Your task to perform on an android device: Go to calendar. Show me events next week Image 0: 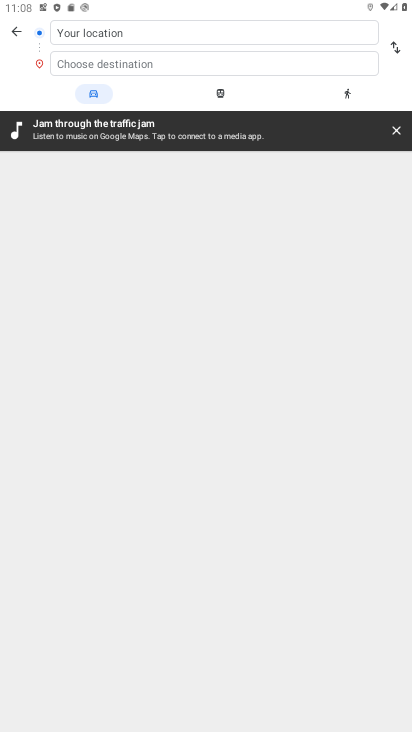
Step 0: press home button
Your task to perform on an android device: Go to calendar. Show me events next week Image 1: 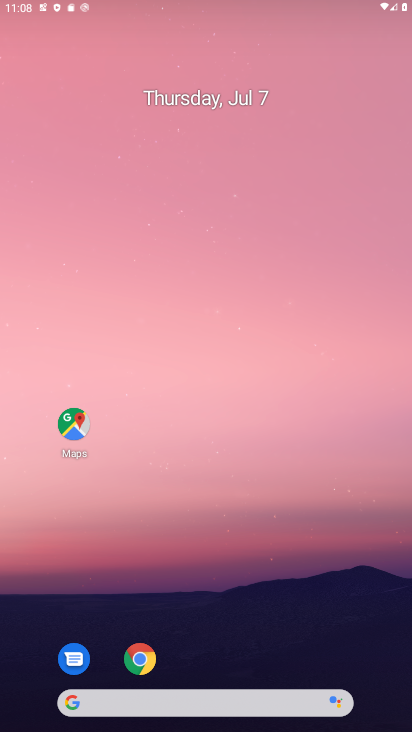
Step 1: drag from (214, 174) to (225, 118)
Your task to perform on an android device: Go to calendar. Show me events next week Image 2: 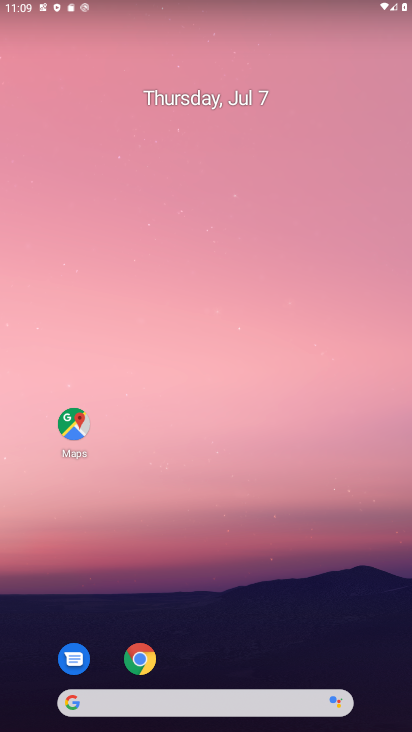
Step 2: drag from (212, 667) to (233, 68)
Your task to perform on an android device: Go to calendar. Show me events next week Image 3: 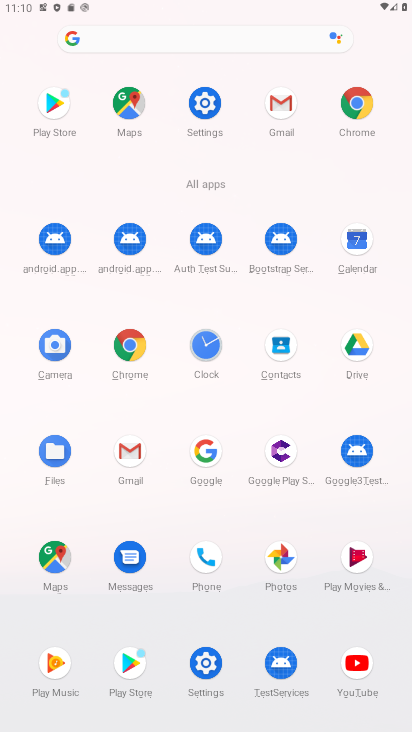
Step 3: click (356, 240)
Your task to perform on an android device: Go to calendar. Show me events next week Image 4: 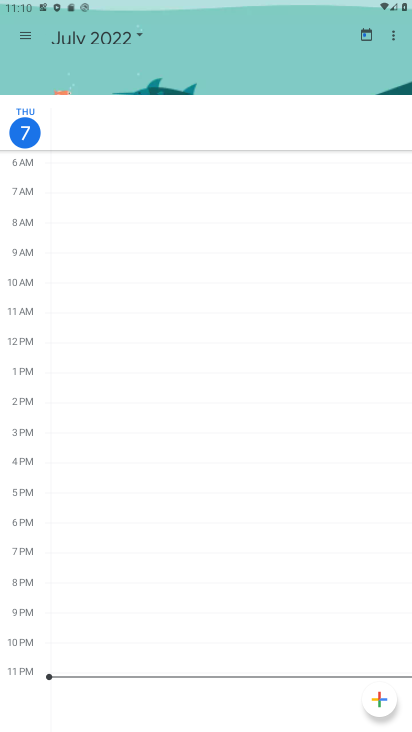
Step 4: click (138, 32)
Your task to perform on an android device: Go to calendar. Show me events next week Image 5: 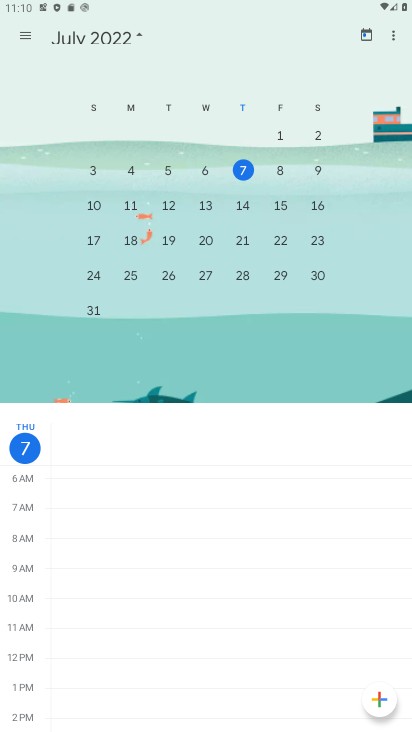
Step 5: click (93, 202)
Your task to perform on an android device: Go to calendar. Show me events next week Image 6: 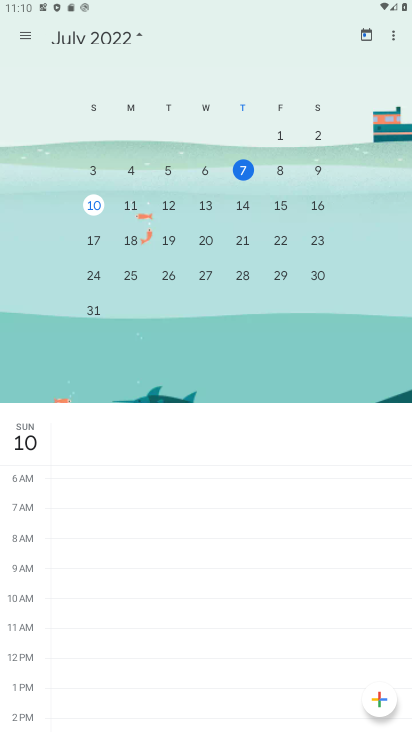
Step 6: click (21, 24)
Your task to perform on an android device: Go to calendar. Show me events next week Image 7: 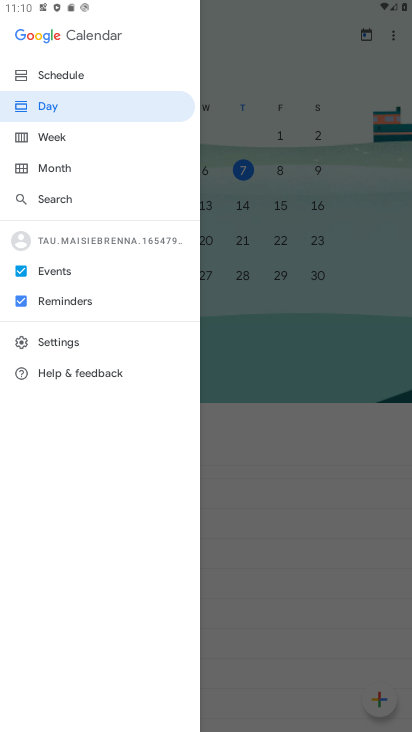
Step 7: click (57, 140)
Your task to perform on an android device: Go to calendar. Show me events next week Image 8: 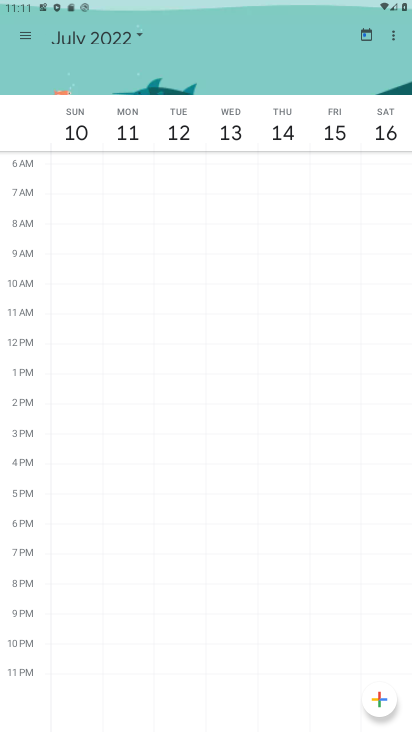
Step 8: task complete